Your task to perform on an android device: uninstall "ColorNote Notepad Notes" Image 0: 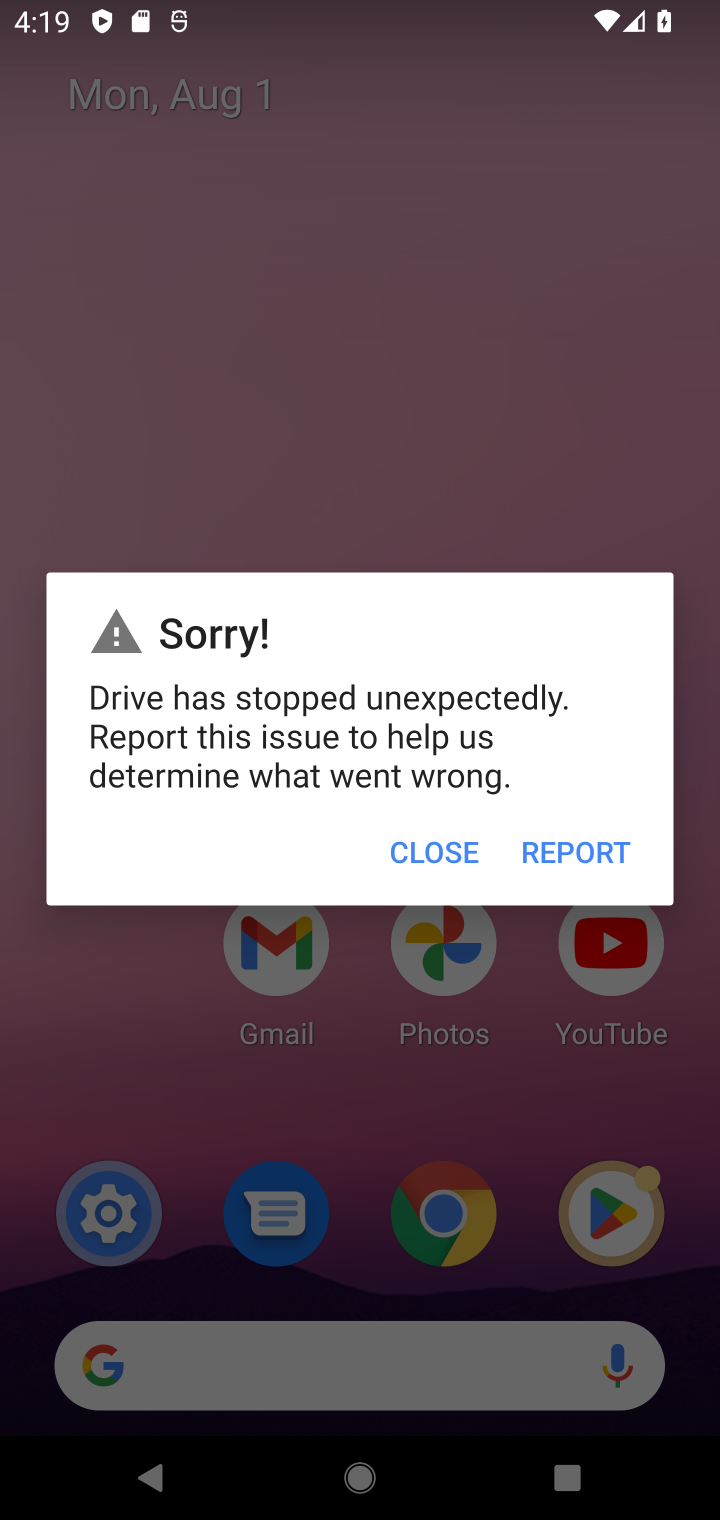
Step 0: press home button
Your task to perform on an android device: uninstall "ColorNote Notepad Notes" Image 1: 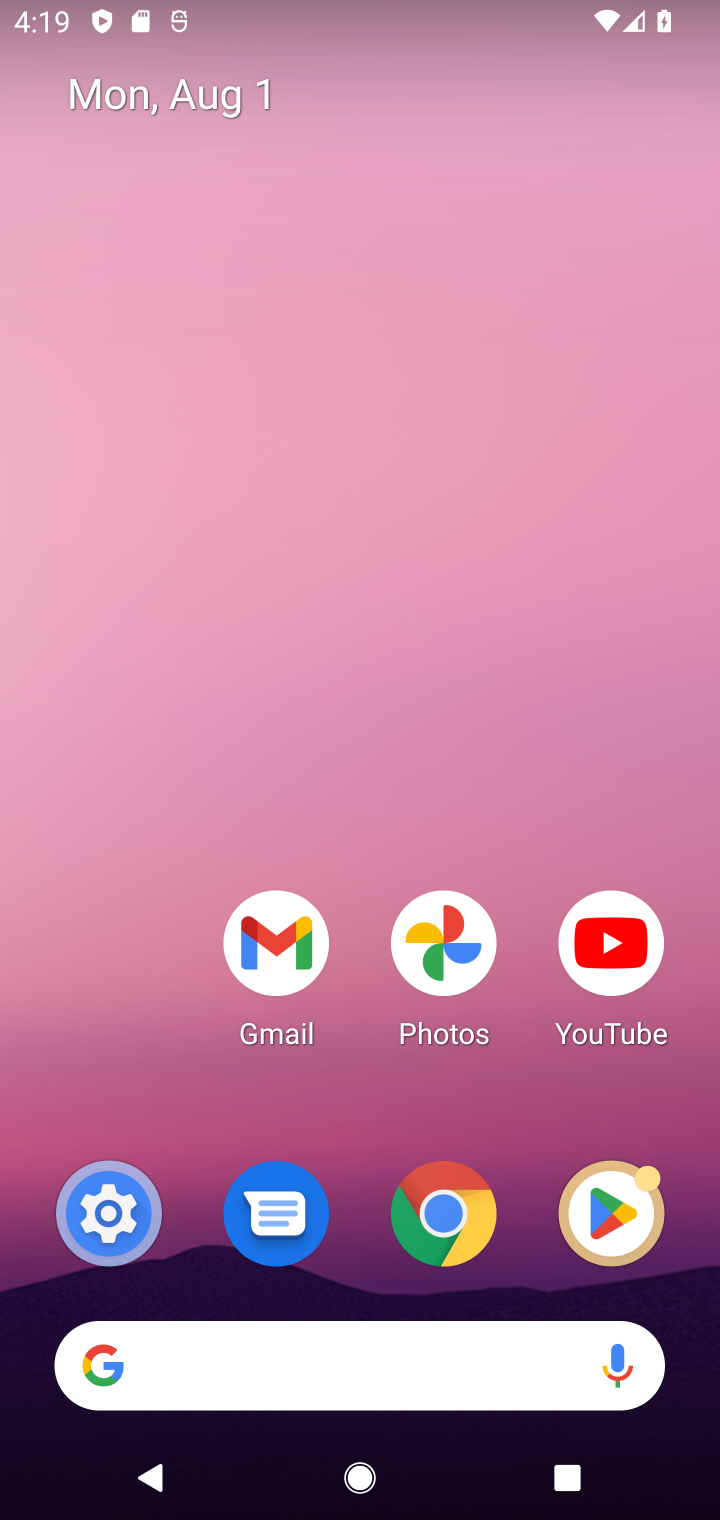
Step 1: click (605, 1221)
Your task to perform on an android device: uninstall "ColorNote Notepad Notes" Image 2: 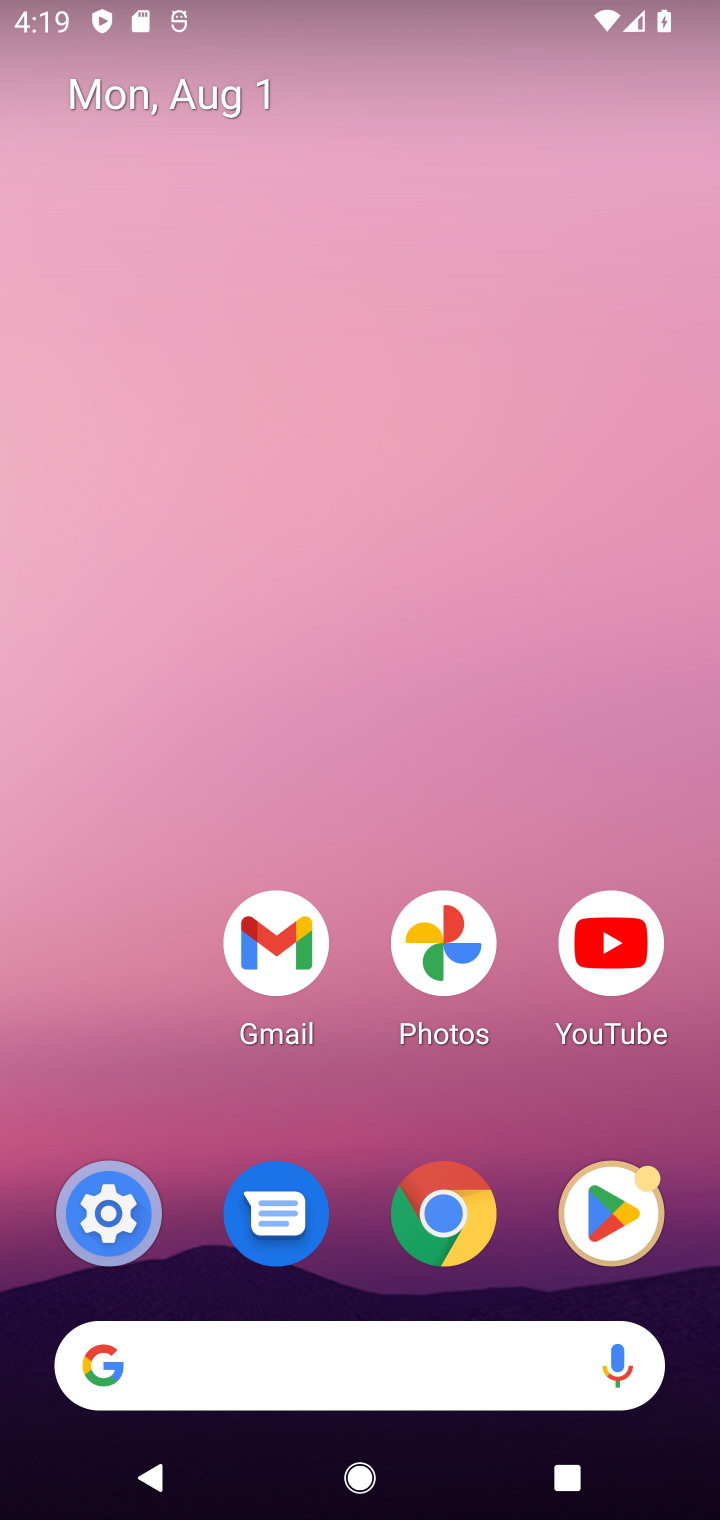
Step 2: click (627, 1230)
Your task to perform on an android device: uninstall "ColorNote Notepad Notes" Image 3: 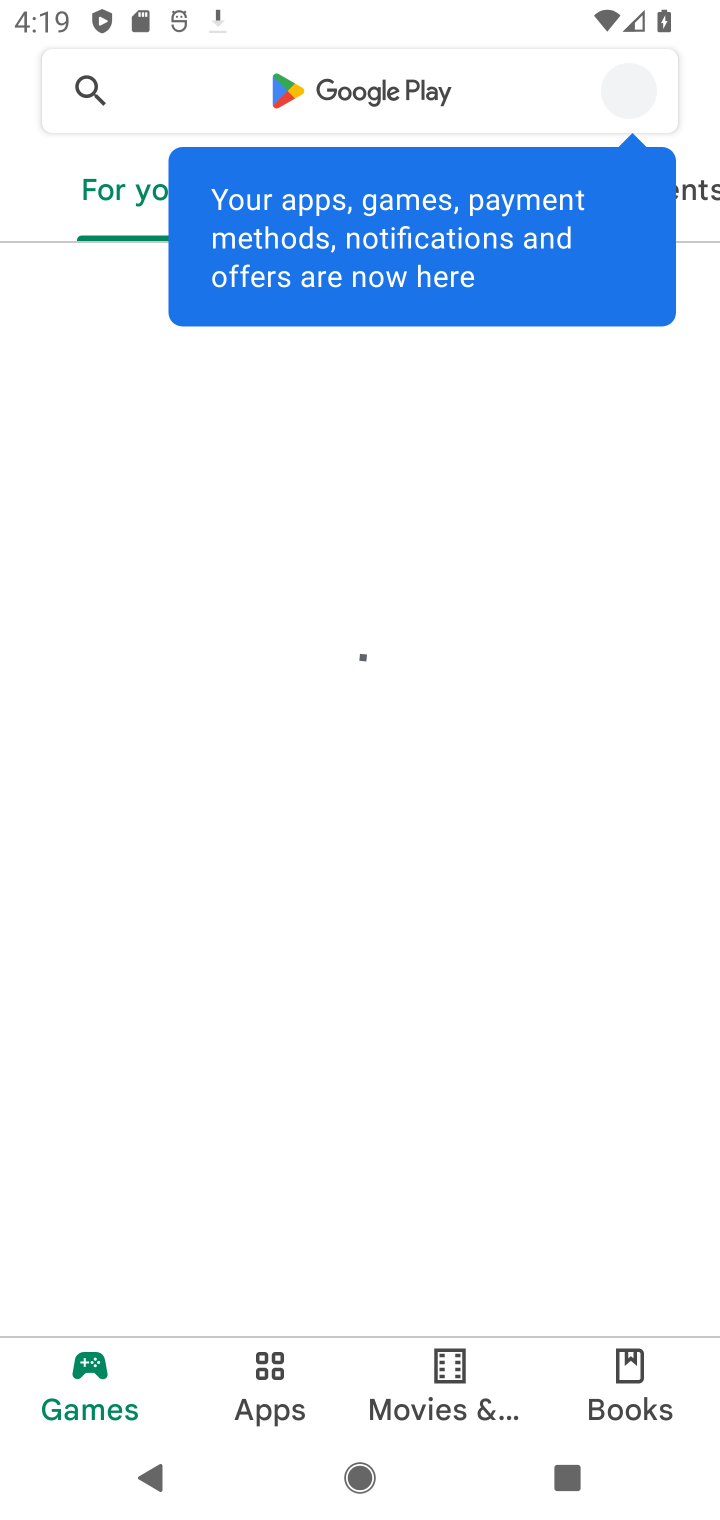
Step 3: click (253, 92)
Your task to perform on an android device: uninstall "ColorNote Notepad Notes" Image 4: 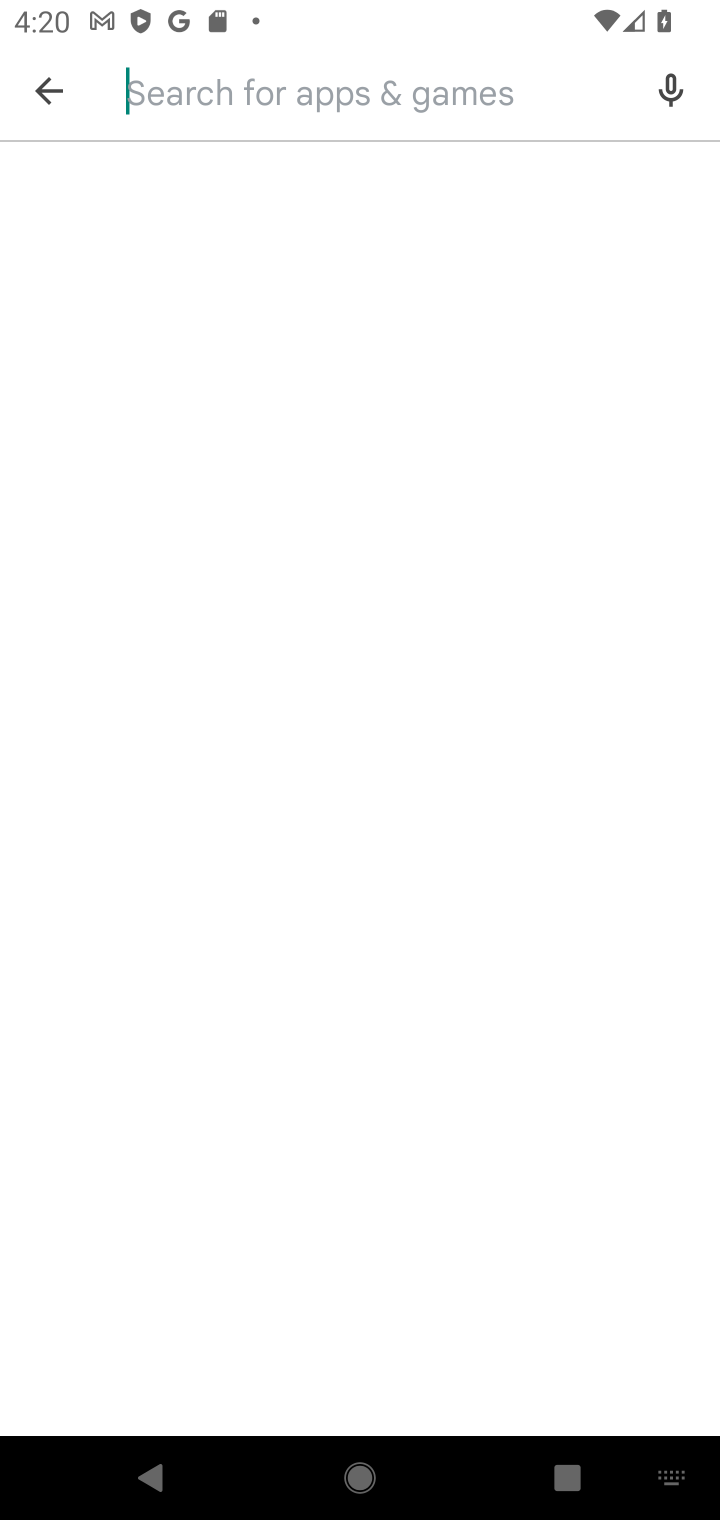
Step 4: type "colornote"
Your task to perform on an android device: uninstall "ColorNote Notepad Notes" Image 5: 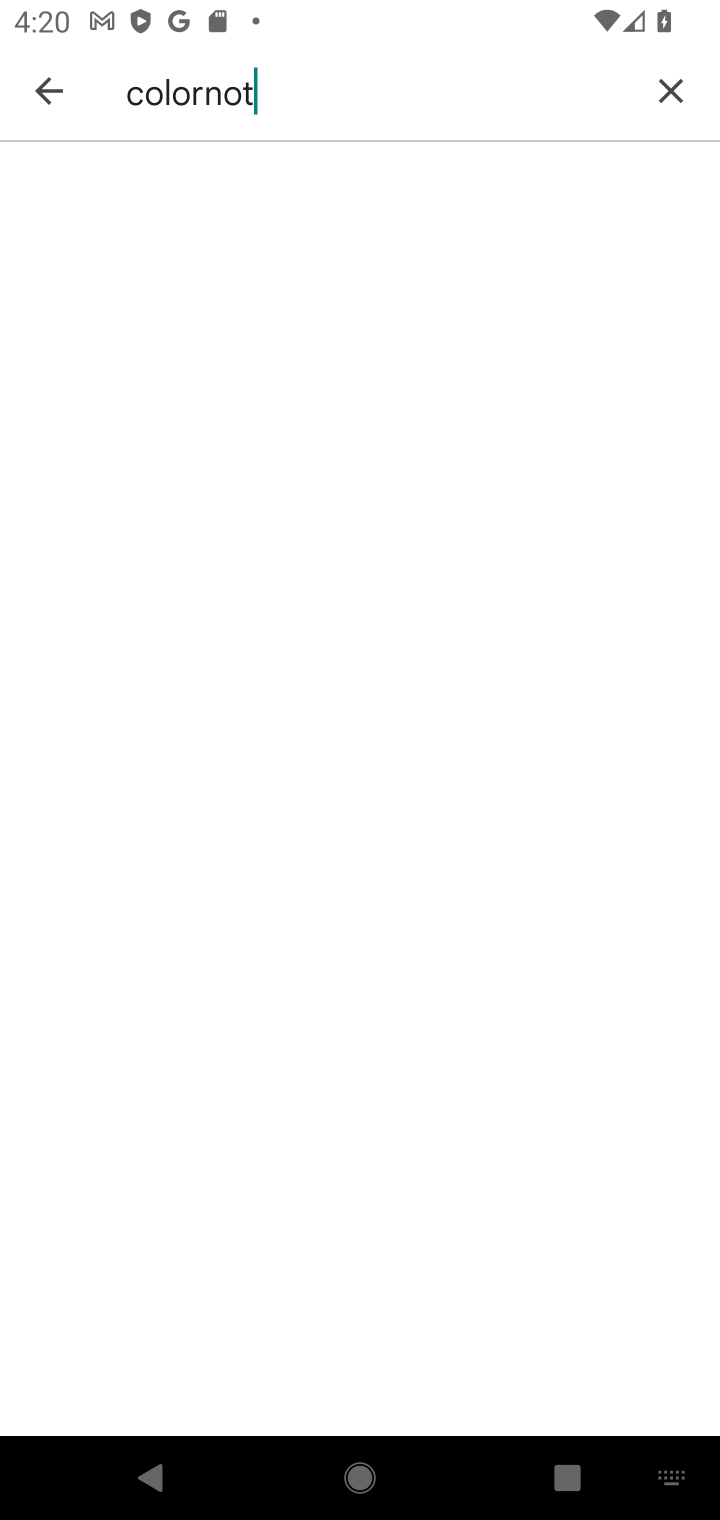
Step 5: type ""
Your task to perform on an android device: uninstall "ColorNote Notepad Notes" Image 6: 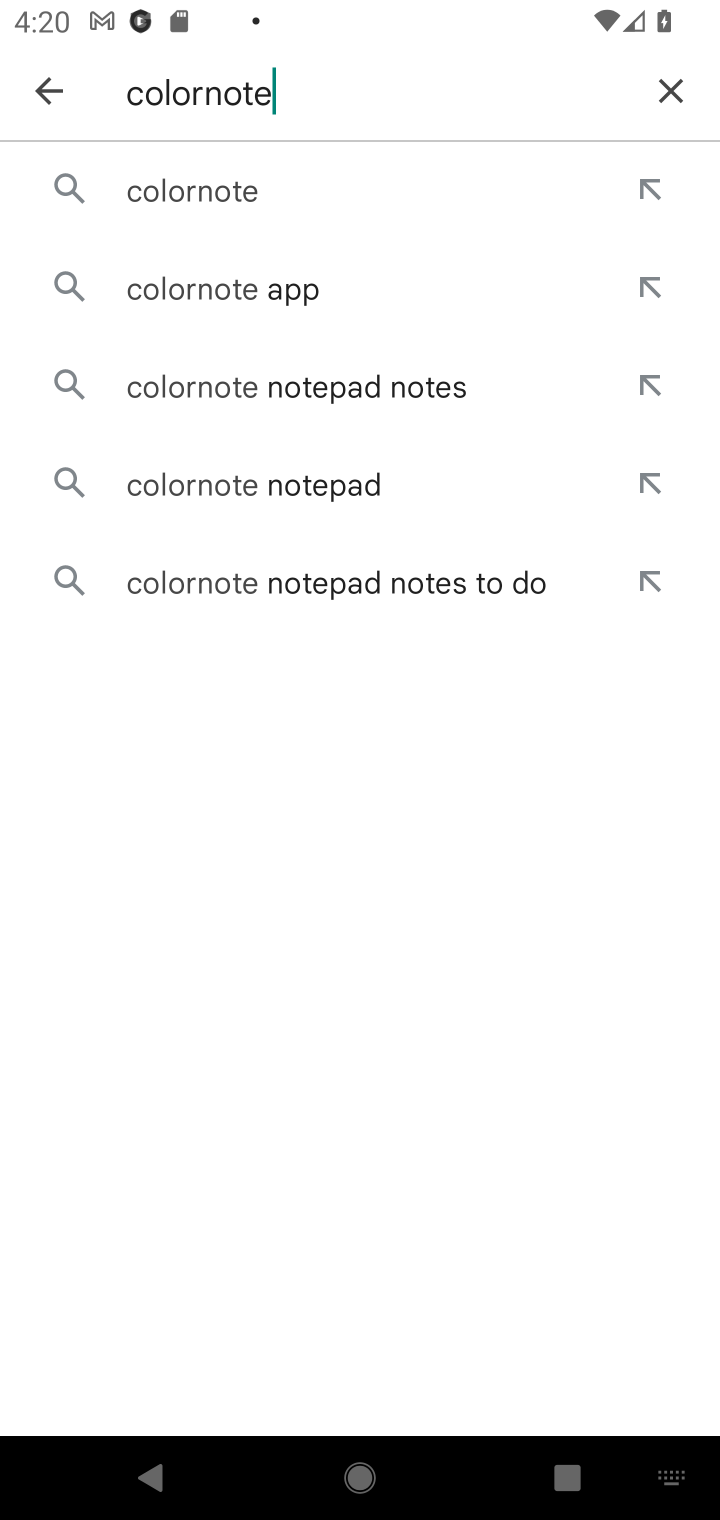
Step 6: click (345, 206)
Your task to perform on an android device: uninstall "ColorNote Notepad Notes" Image 7: 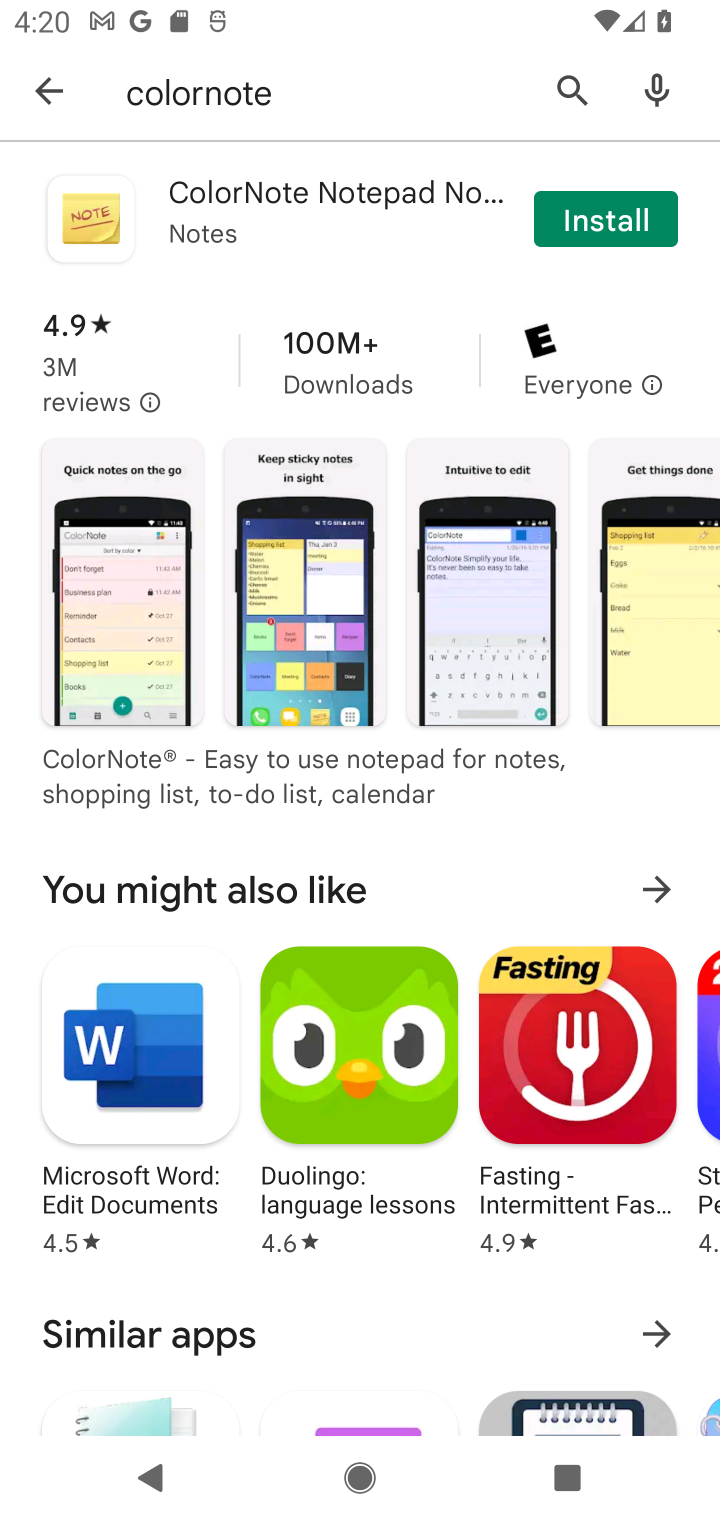
Step 7: task complete